Your task to perform on an android device: show emergency info Image 0: 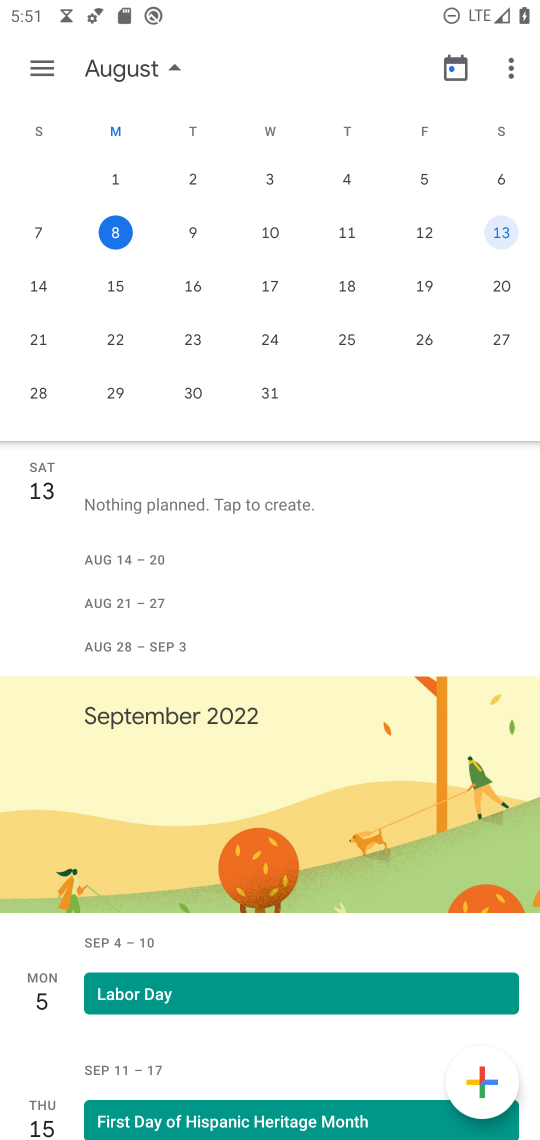
Step 0: press home button
Your task to perform on an android device: show emergency info Image 1: 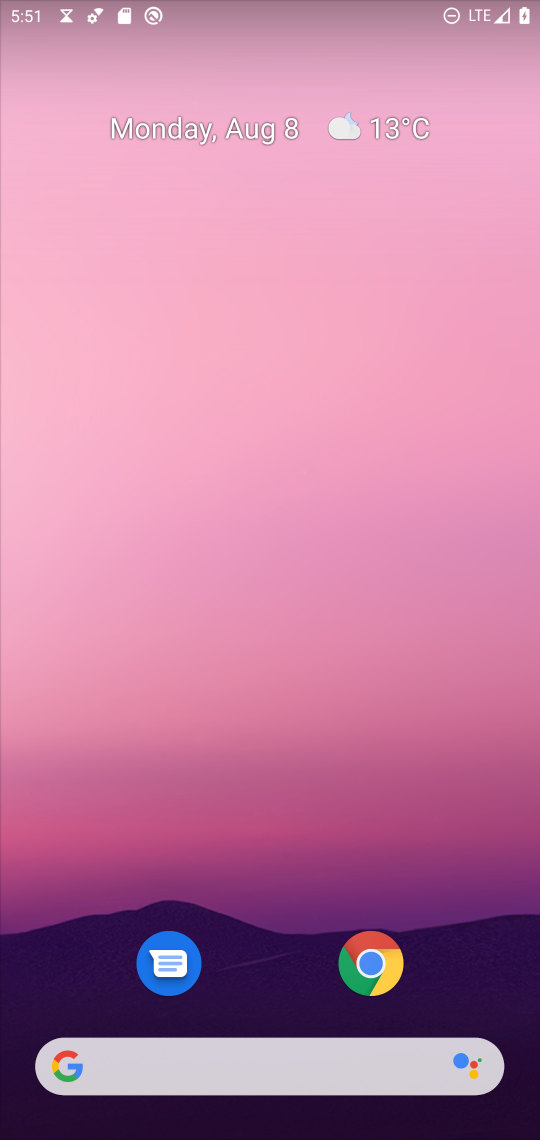
Step 1: drag from (256, 894) to (274, 30)
Your task to perform on an android device: show emergency info Image 2: 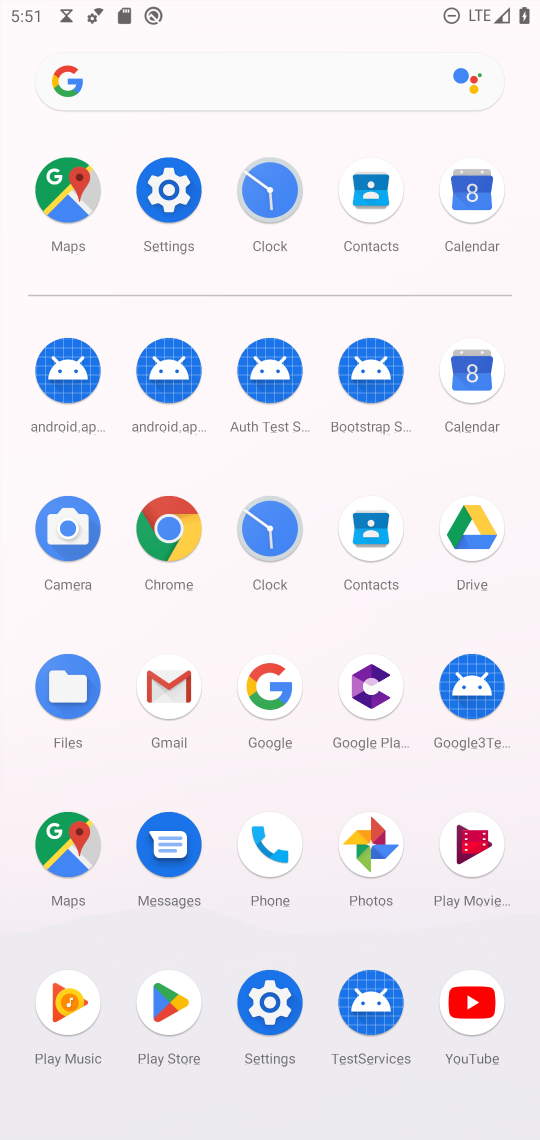
Step 2: click (155, 195)
Your task to perform on an android device: show emergency info Image 3: 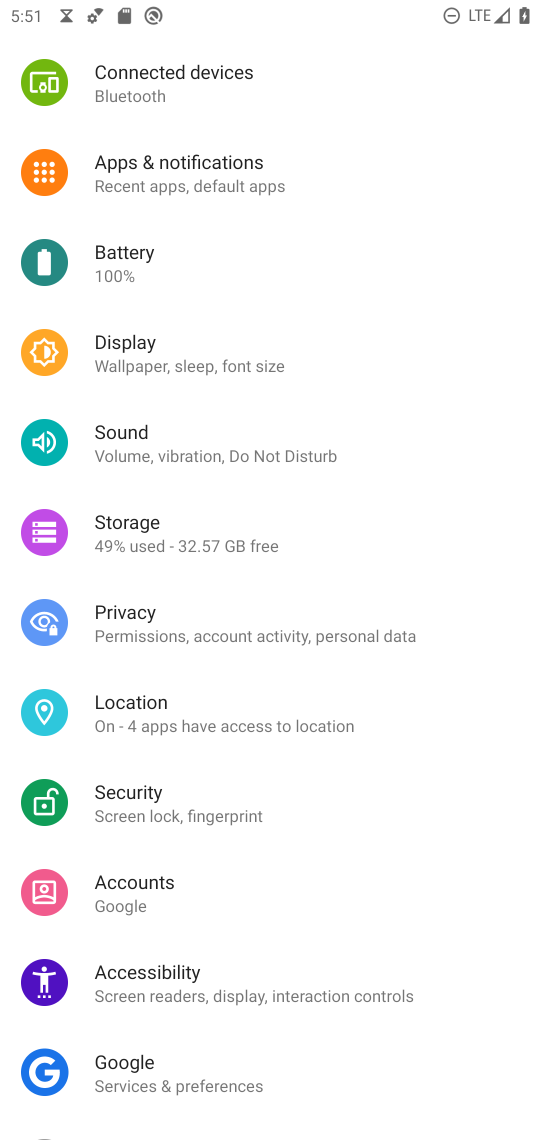
Step 3: drag from (235, 872) to (196, 331)
Your task to perform on an android device: show emergency info Image 4: 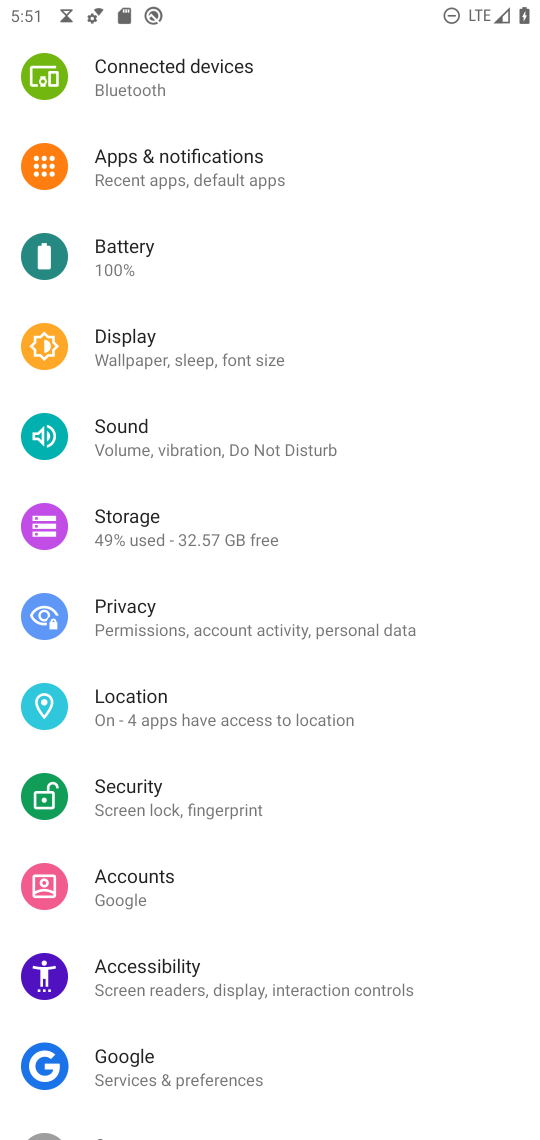
Step 4: drag from (231, 994) to (205, 497)
Your task to perform on an android device: show emergency info Image 5: 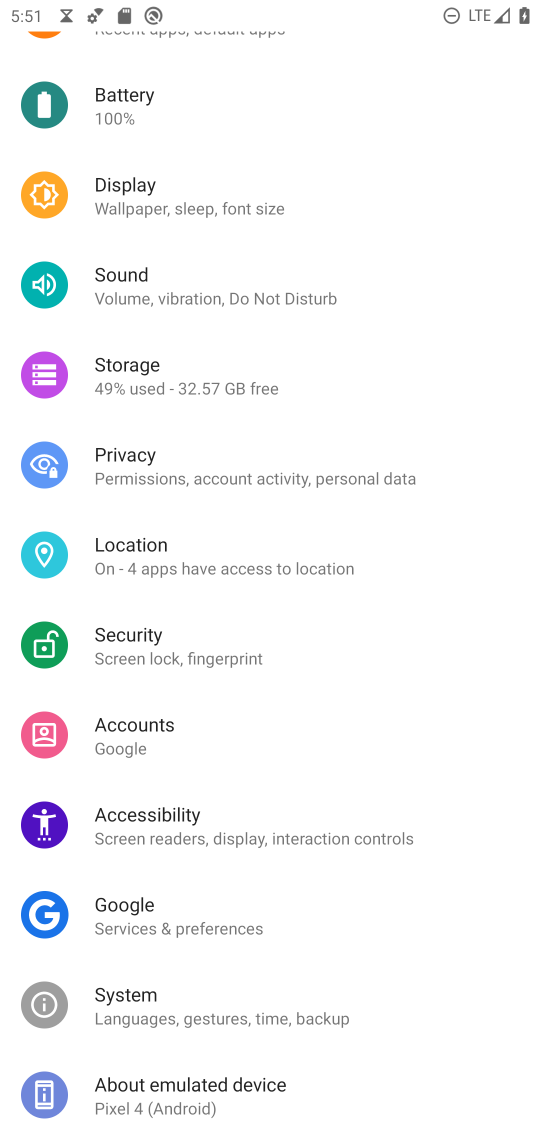
Step 5: click (243, 1083)
Your task to perform on an android device: show emergency info Image 6: 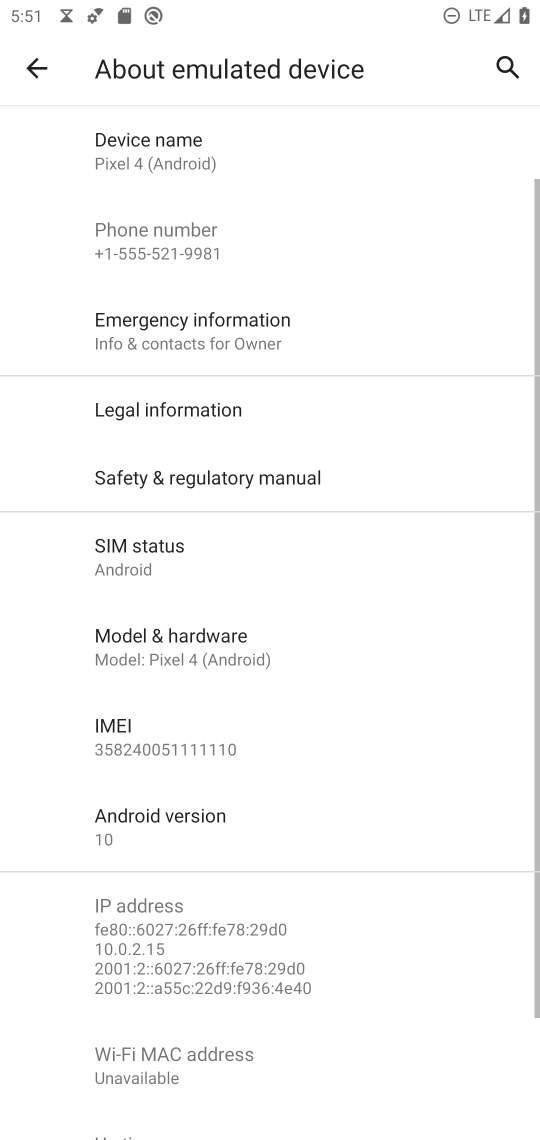
Step 6: click (252, 317)
Your task to perform on an android device: show emergency info Image 7: 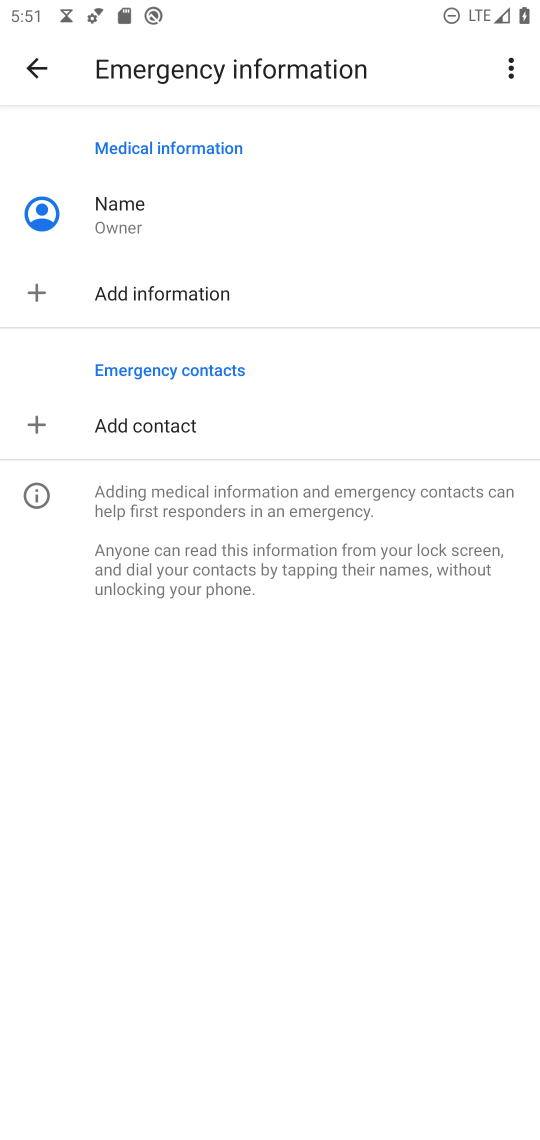
Step 7: task complete